Your task to perform on an android device: turn on airplane mode Image 0: 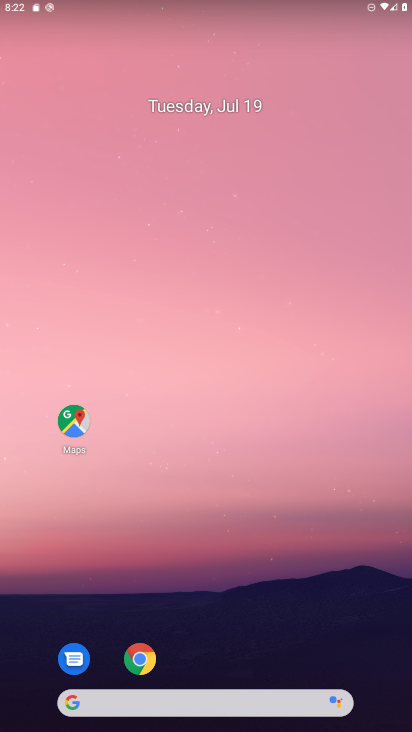
Step 0: drag from (223, 610) to (223, 169)
Your task to perform on an android device: turn on airplane mode Image 1: 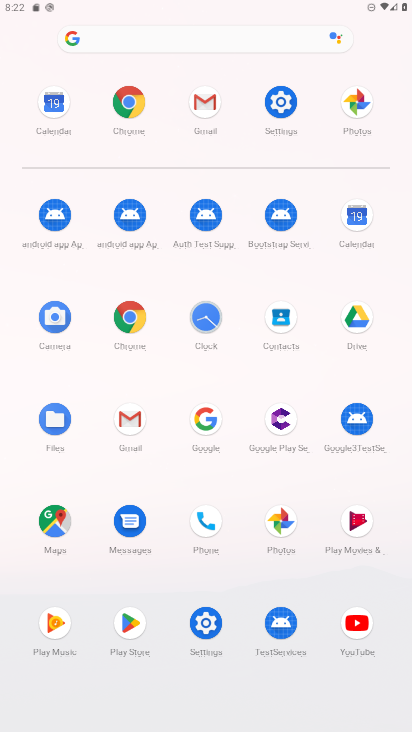
Step 1: click (287, 102)
Your task to perform on an android device: turn on airplane mode Image 2: 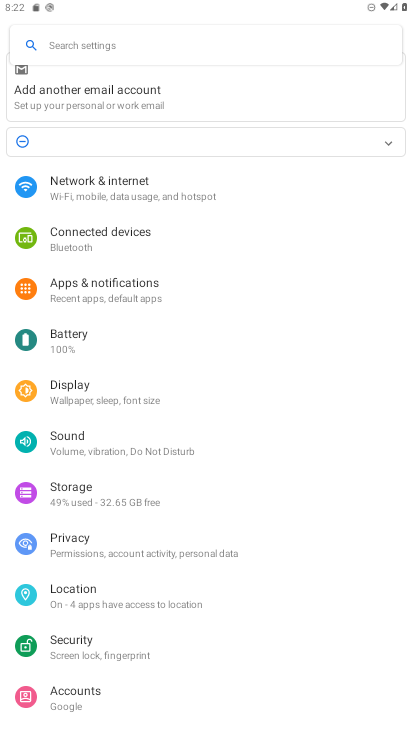
Step 2: click (203, 192)
Your task to perform on an android device: turn on airplane mode Image 3: 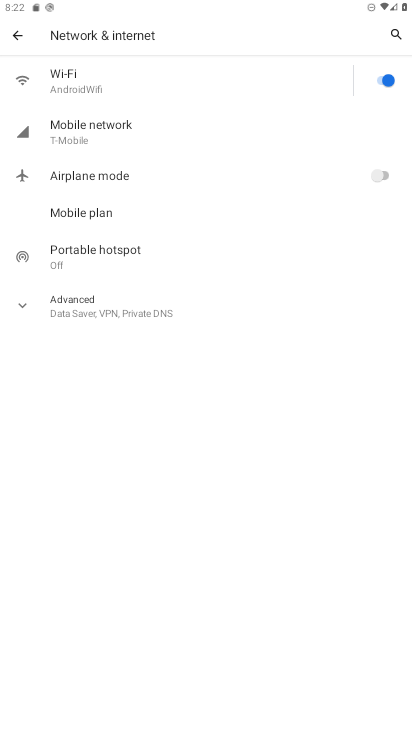
Step 3: click (386, 173)
Your task to perform on an android device: turn on airplane mode Image 4: 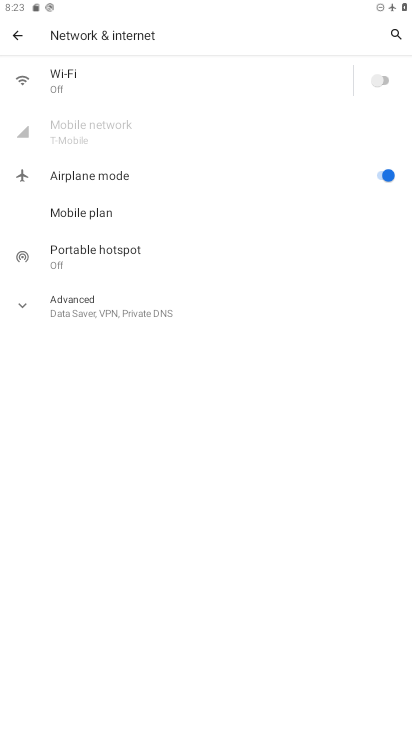
Step 4: task complete